Your task to perform on an android device: show emergency info Image 0: 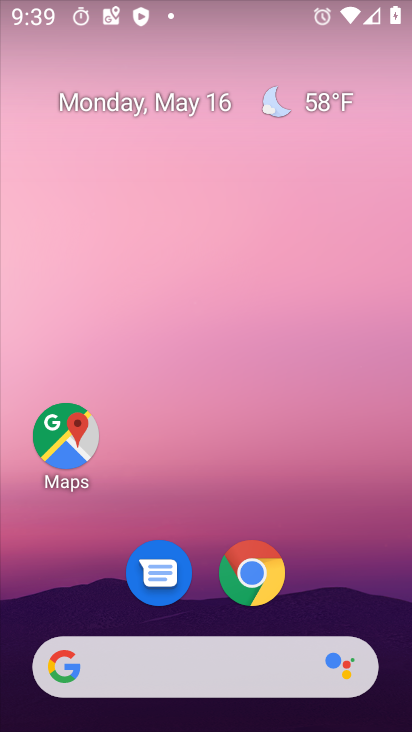
Step 0: drag from (366, 711) to (129, 0)
Your task to perform on an android device: show emergency info Image 1: 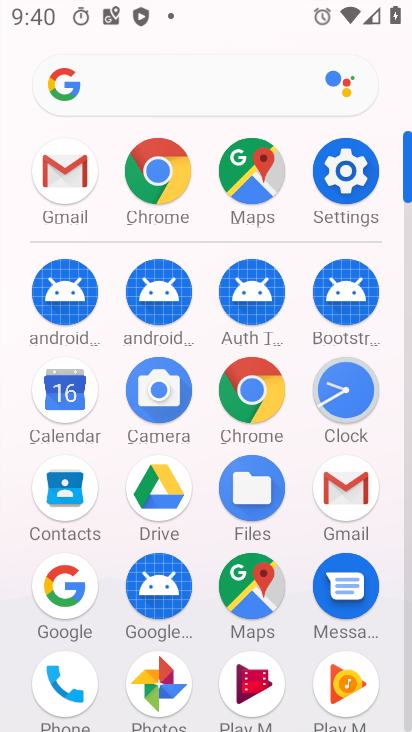
Step 1: click (344, 185)
Your task to perform on an android device: show emergency info Image 2: 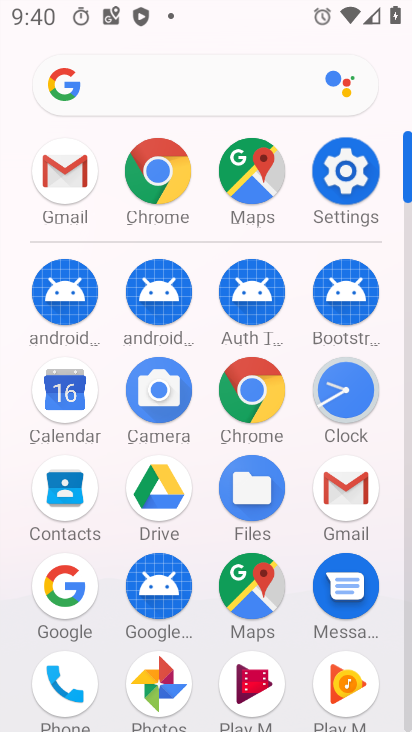
Step 2: click (344, 185)
Your task to perform on an android device: show emergency info Image 3: 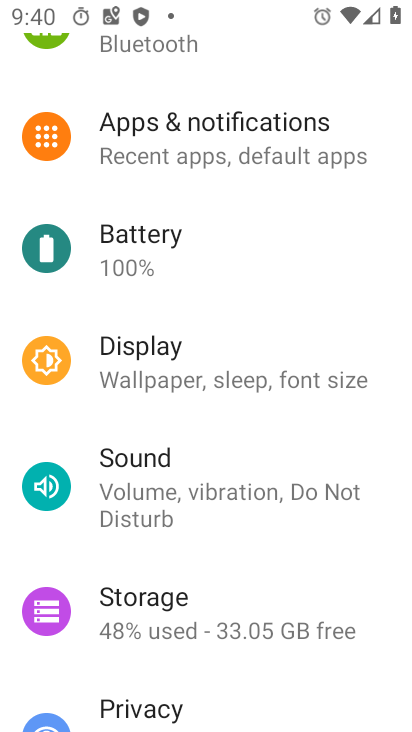
Step 3: drag from (251, 616) to (168, 121)
Your task to perform on an android device: show emergency info Image 4: 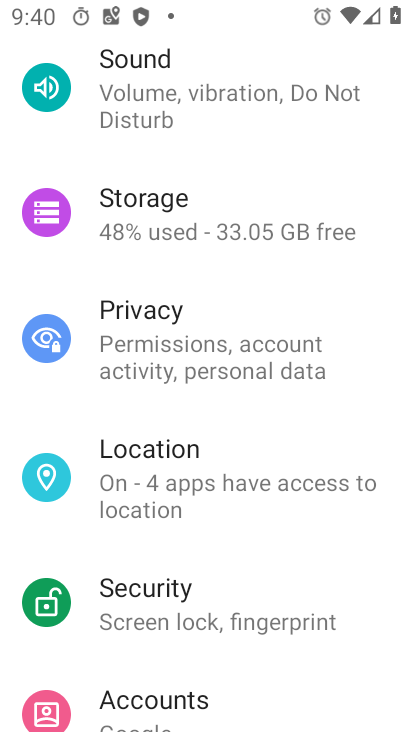
Step 4: drag from (189, 506) to (206, 34)
Your task to perform on an android device: show emergency info Image 5: 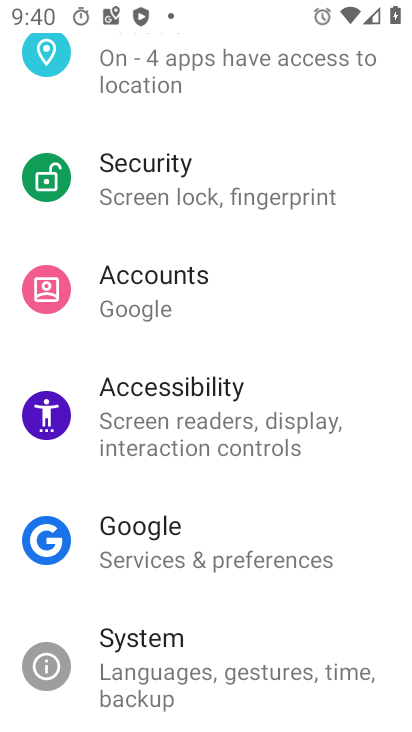
Step 5: drag from (293, 387) to (288, 4)
Your task to perform on an android device: show emergency info Image 6: 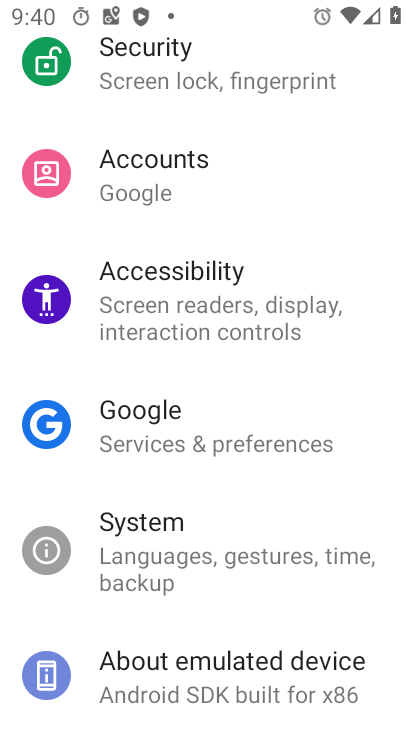
Step 6: click (176, 665)
Your task to perform on an android device: show emergency info Image 7: 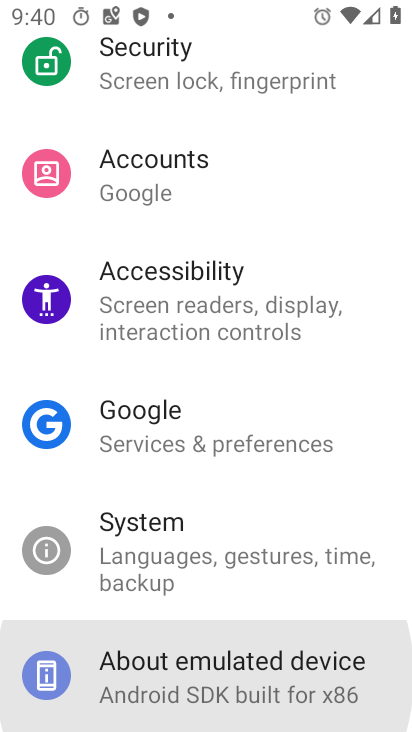
Step 7: click (177, 665)
Your task to perform on an android device: show emergency info Image 8: 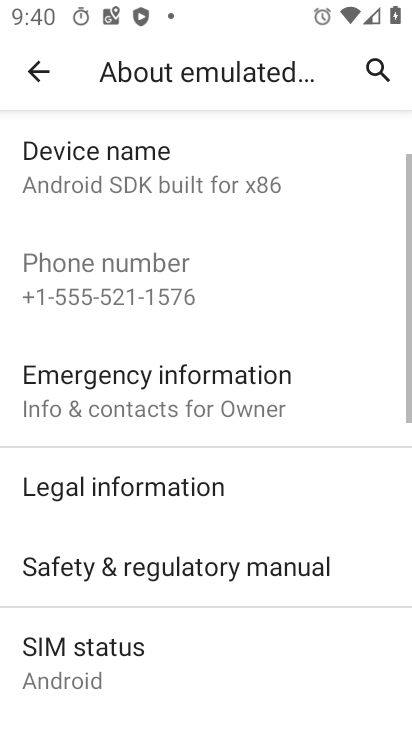
Step 8: click (83, 380)
Your task to perform on an android device: show emergency info Image 9: 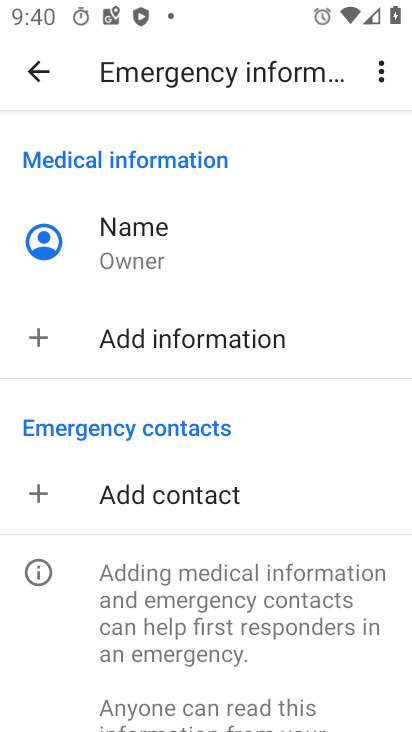
Step 9: task complete